Your task to perform on an android device: stop showing notifications on the lock screen Image 0: 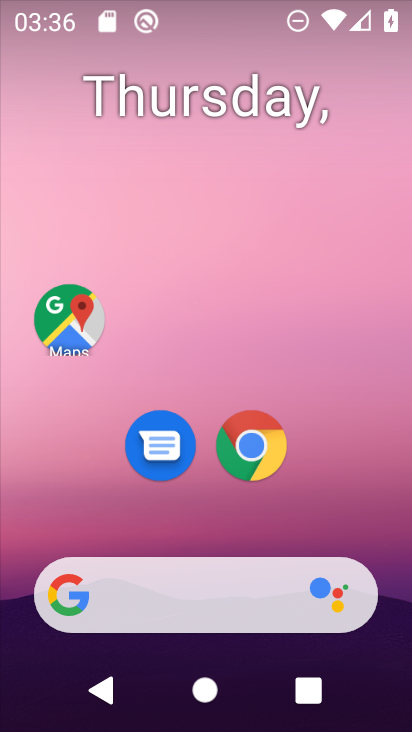
Step 0: drag from (339, 549) to (323, 23)
Your task to perform on an android device: stop showing notifications on the lock screen Image 1: 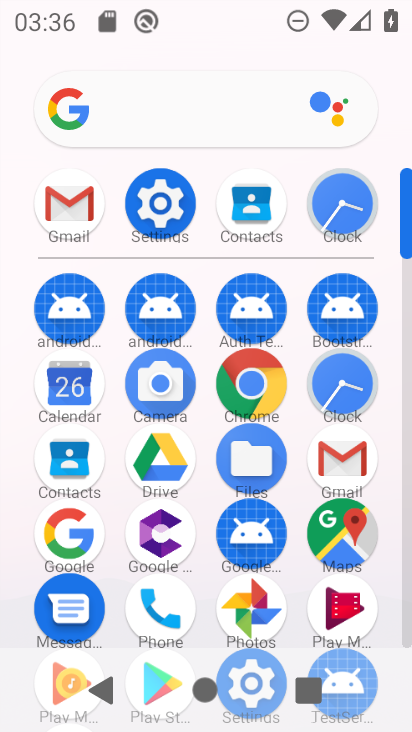
Step 1: click (164, 205)
Your task to perform on an android device: stop showing notifications on the lock screen Image 2: 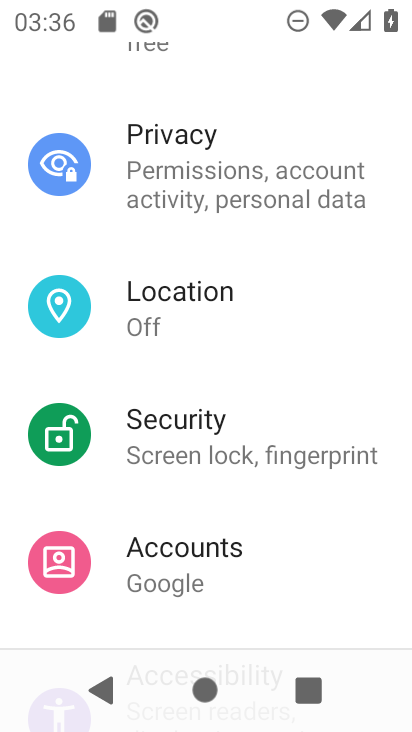
Step 2: drag from (276, 348) to (262, 608)
Your task to perform on an android device: stop showing notifications on the lock screen Image 3: 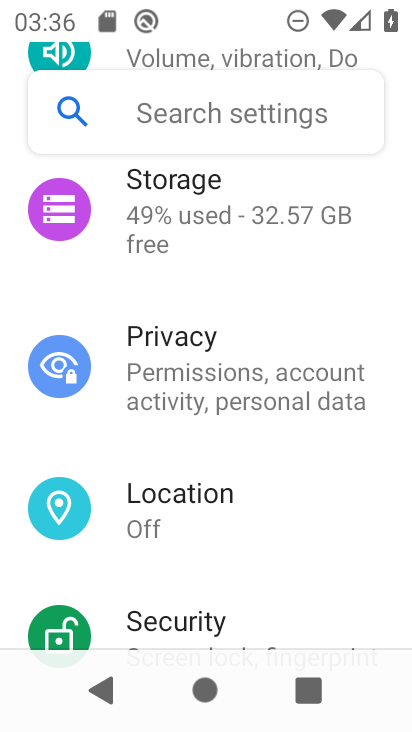
Step 3: drag from (221, 276) to (215, 704)
Your task to perform on an android device: stop showing notifications on the lock screen Image 4: 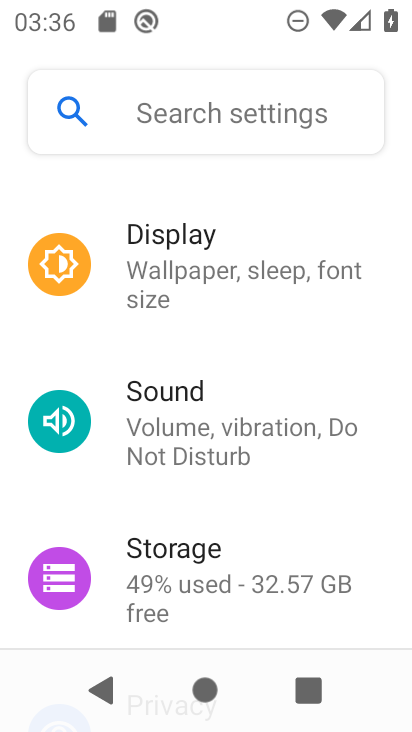
Step 4: drag from (231, 305) to (202, 720)
Your task to perform on an android device: stop showing notifications on the lock screen Image 5: 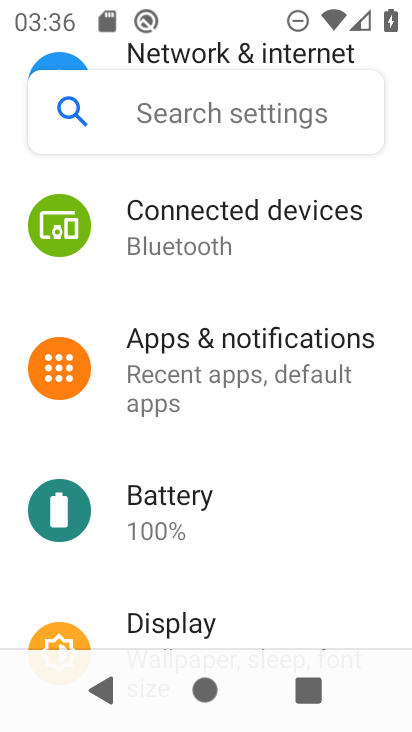
Step 5: click (213, 364)
Your task to perform on an android device: stop showing notifications on the lock screen Image 6: 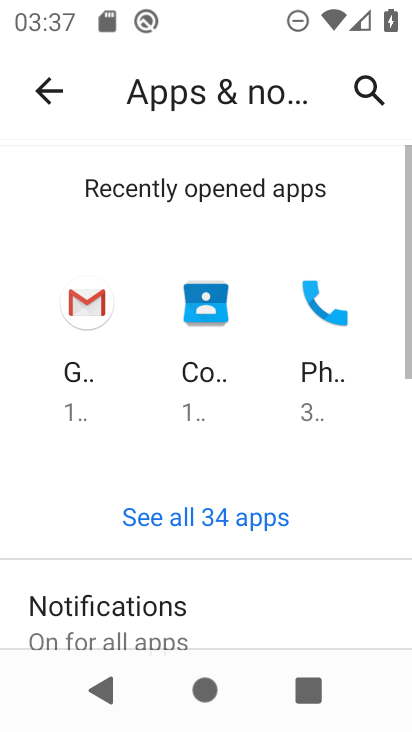
Step 6: drag from (171, 586) to (176, 190)
Your task to perform on an android device: stop showing notifications on the lock screen Image 7: 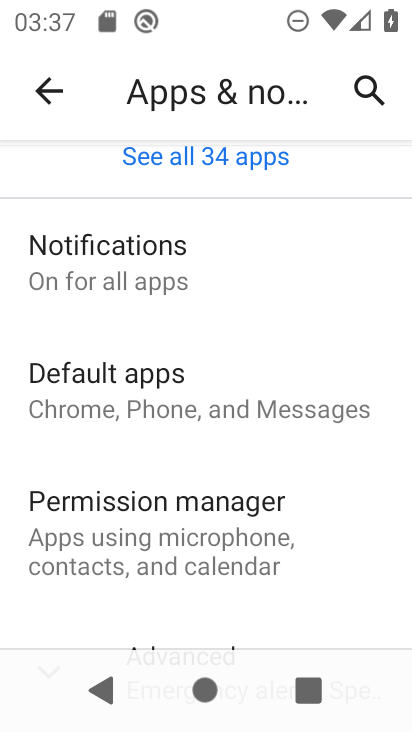
Step 7: click (91, 280)
Your task to perform on an android device: stop showing notifications on the lock screen Image 8: 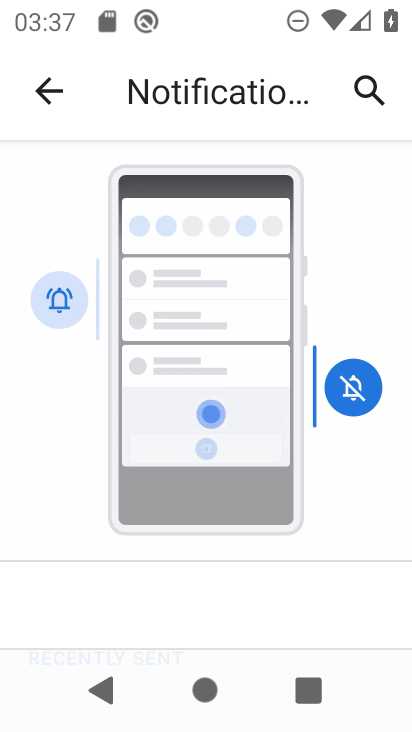
Step 8: drag from (207, 601) to (227, 202)
Your task to perform on an android device: stop showing notifications on the lock screen Image 9: 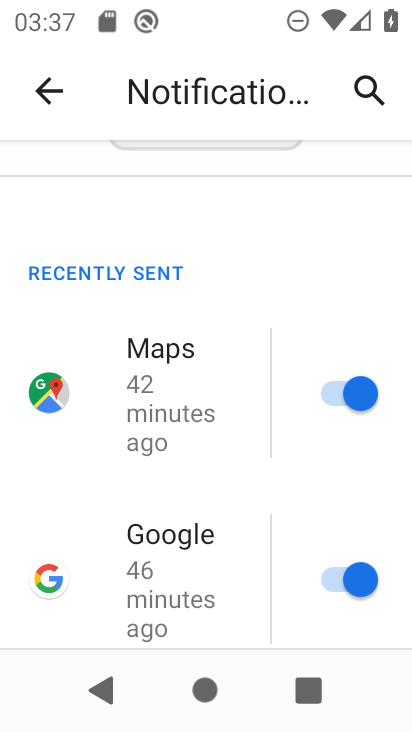
Step 9: drag from (180, 526) to (203, 175)
Your task to perform on an android device: stop showing notifications on the lock screen Image 10: 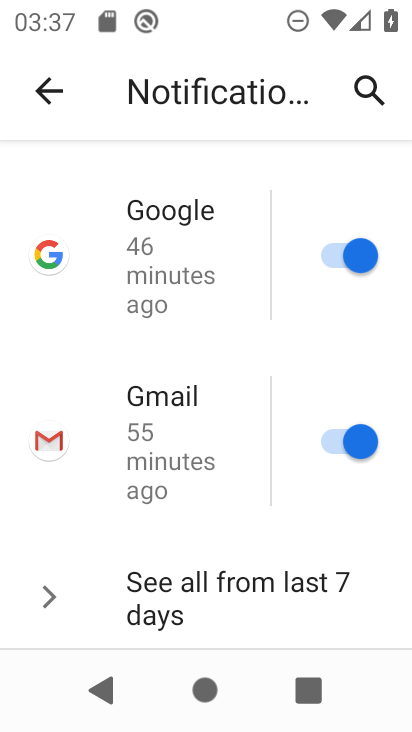
Step 10: drag from (165, 514) to (167, 148)
Your task to perform on an android device: stop showing notifications on the lock screen Image 11: 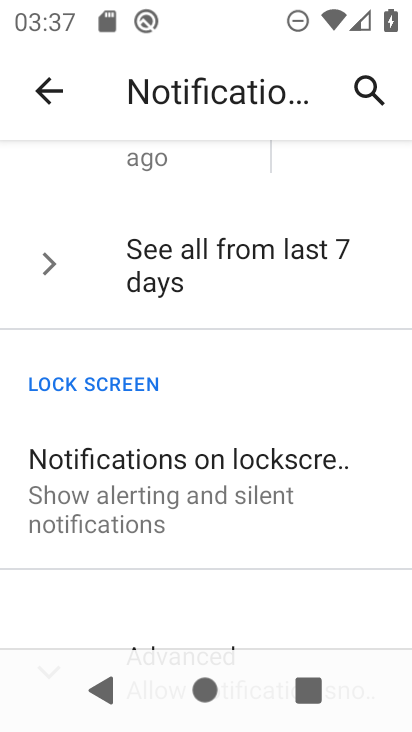
Step 11: click (95, 473)
Your task to perform on an android device: stop showing notifications on the lock screen Image 12: 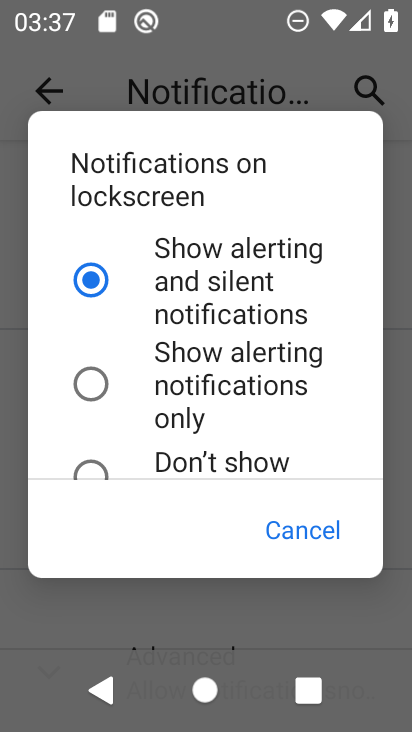
Step 12: drag from (221, 428) to (223, 345)
Your task to perform on an android device: stop showing notifications on the lock screen Image 13: 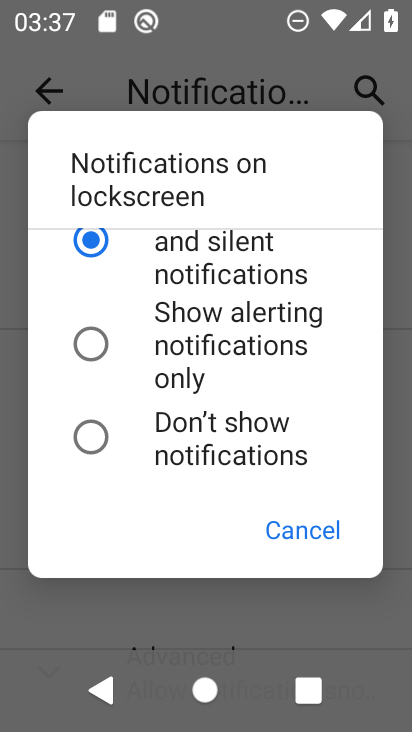
Step 13: click (88, 442)
Your task to perform on an android device: stop showing notifications on the lock screen Image 14: 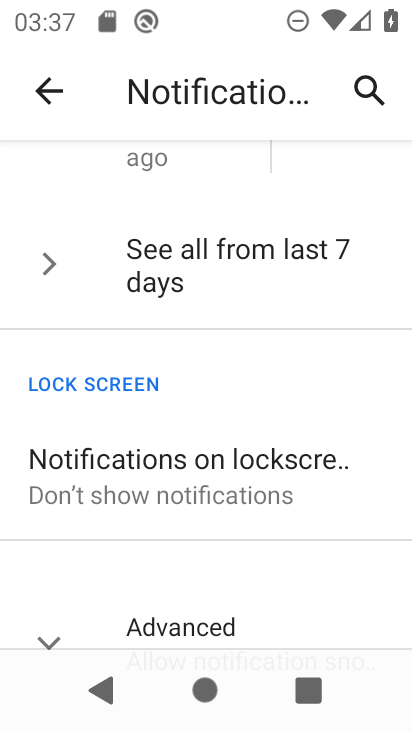
Step 14: task complete